Your task to perform on an android device: toggle translation in the chrome app Image 0: 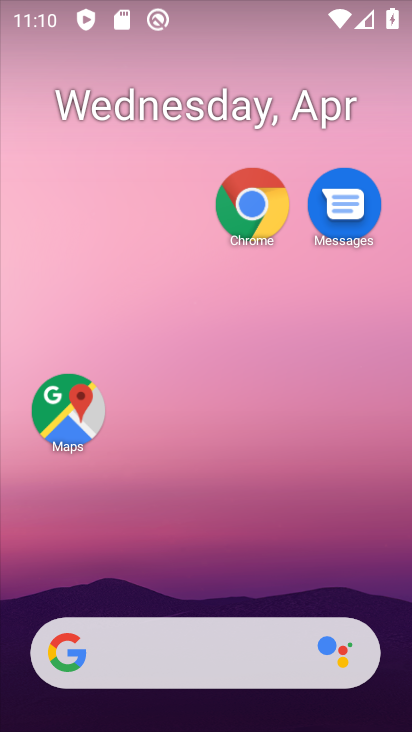
Step 0: drag from (200, 604) to (374, 2)
Your task to perform on an android device: toggle translation in the chrome app Image 1: 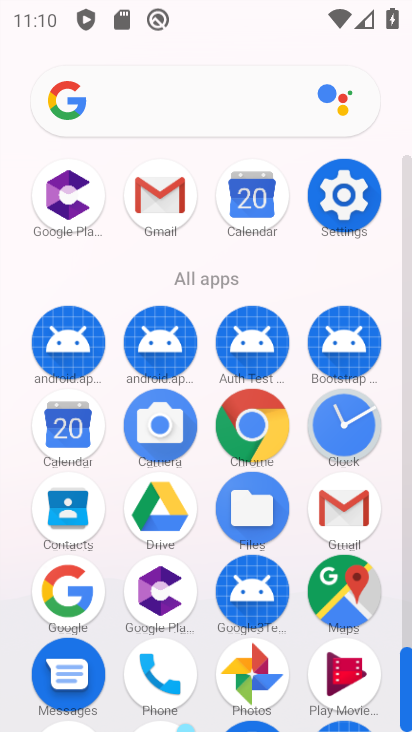
Step 1: click (235, 423)
Your task to perform on an android device: toggle translation in the chrome app Image 2: 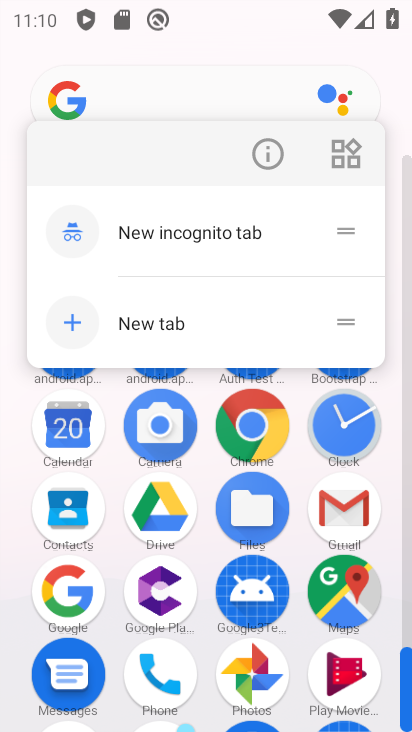
Step 2: click (250, 427)
Your task to perform on an android device: toggle translation in the chrome app Image 3: 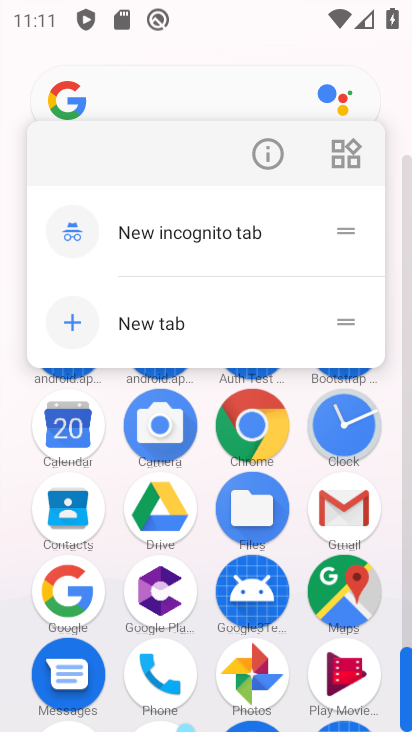
Step 3: click (281, 406)
Your task to perform on an android device: toggle translation in the chrome app Image 4: 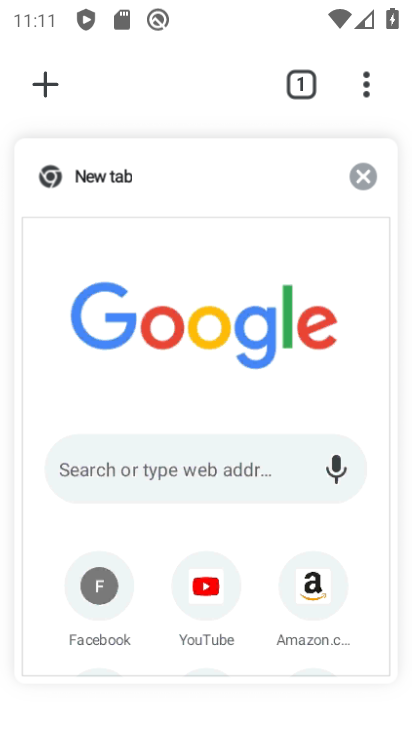
Step 4: click (307, 203)
Your task to perform on an android device: toggle translation in the chrome app Image 5: 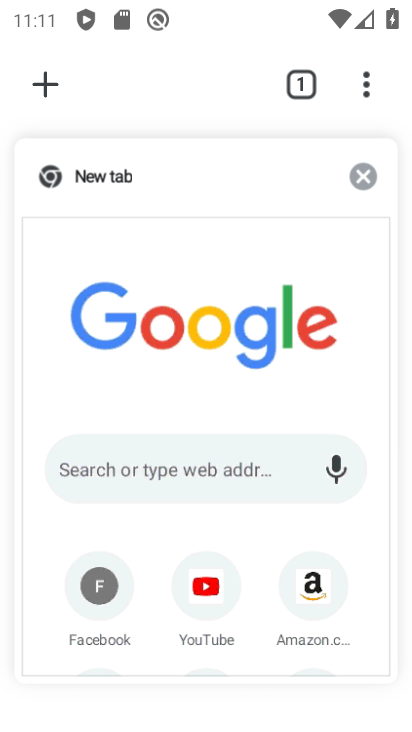
Step 5: click (367, 100)
Your task to perform on an android device: toggle translation in the chrome app Image 6: 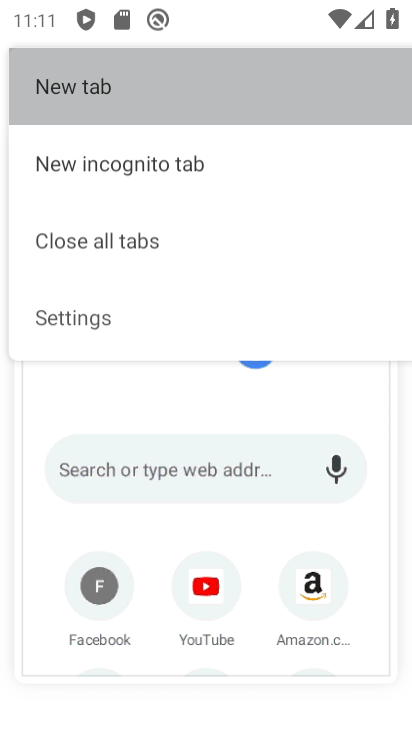
Step 6: drag from (367, 100) to (105, 590)
Your task to perform on an android device: toggle translation in the chrome app Image 7: 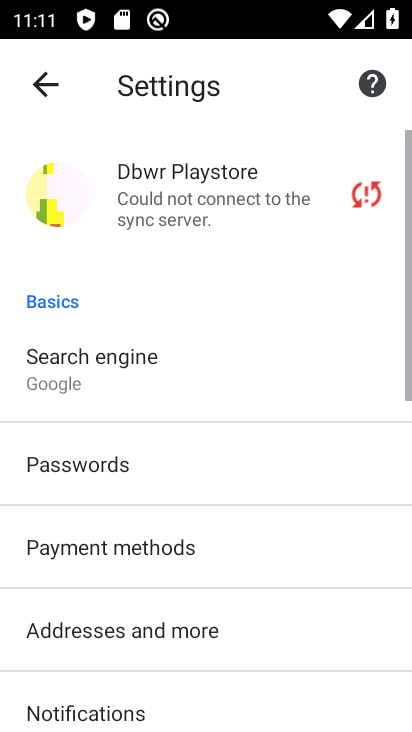
Step 7: drag from (114, 592) to (113, 121)
Your task to perform on an android device: toggle translation in the chrome app Image 8: 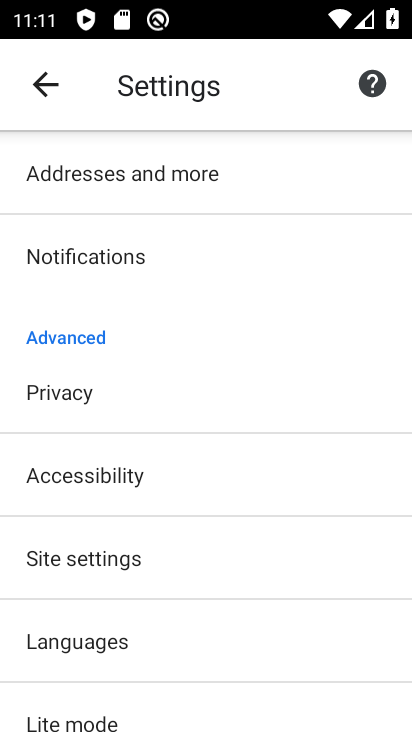
Step 8: click (102, 627)
Your task to perform on an android device: toggle translation in the chrome app Image 9: 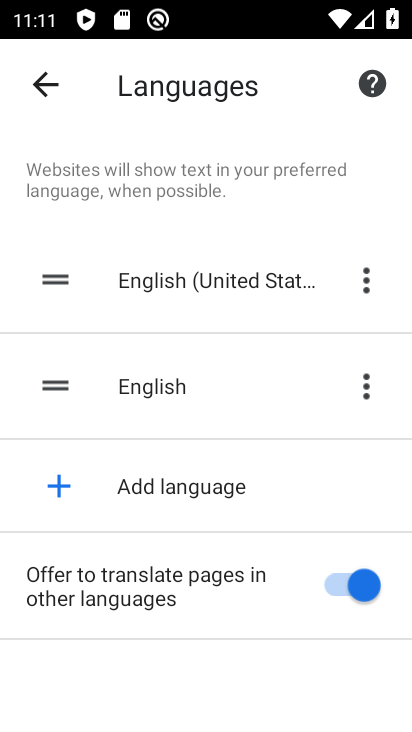
Step 9: click (322, 572)
Your task to perform on an android device: toggle translation in the chrome app Image 10: 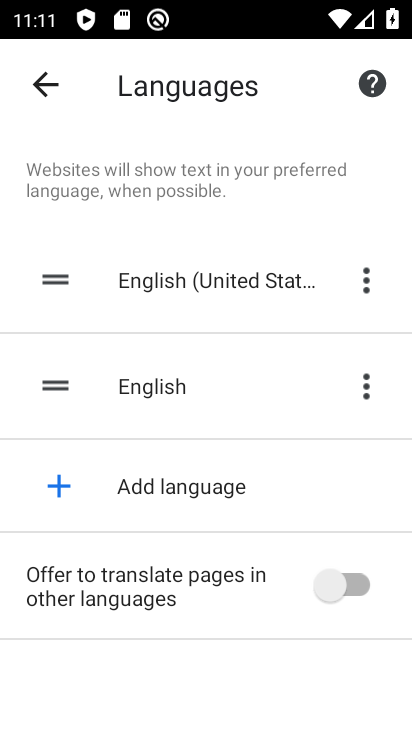
Step 10: task complete